Your task to perform on an android device: open app "Chime – Mobile Banking" Image 0: 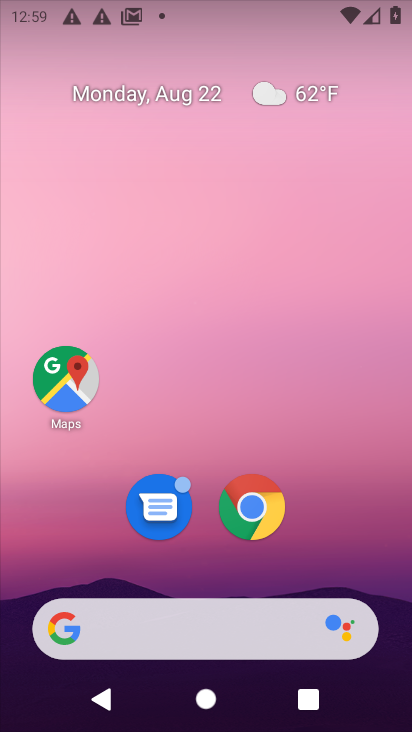
Step 0: click (345, 54)
Your task to perform on an android device: open app "Chime – Mobile Banking" Image 1: 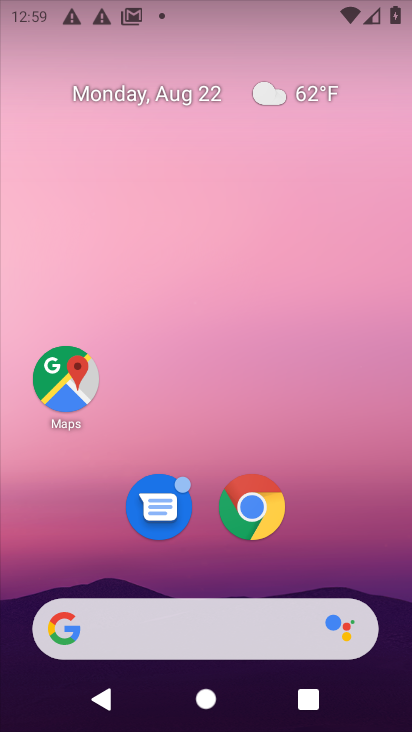
Step 1: drag from (388, 622) to (376, 84)
Your task to perform on an android device: open app "Chime – Mobile Banking" Image 2: 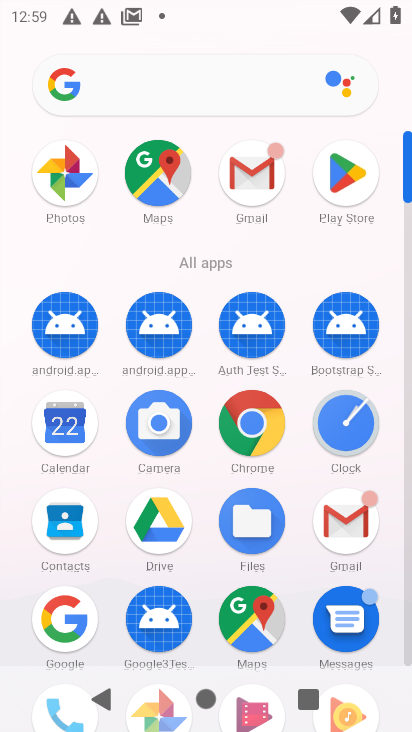
Step 2: click (406, 650)
Your task to perform on an android device: open app "Chime – Mobile Banking" Image 3: 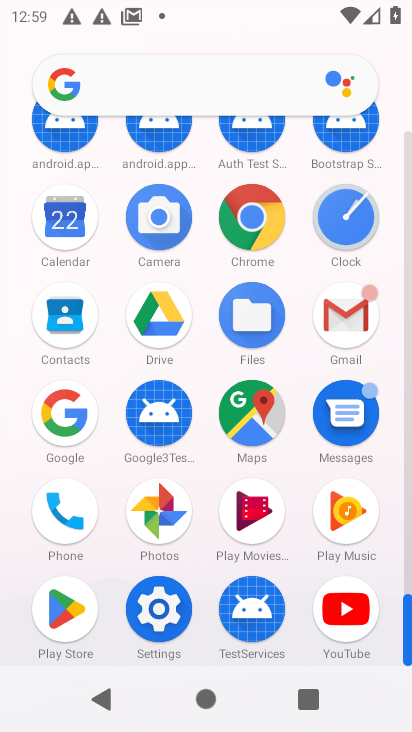
Step 3: click (66, 609)
Your task to perform on an android device: open app "Chime – Mobile Banking" Image 4: 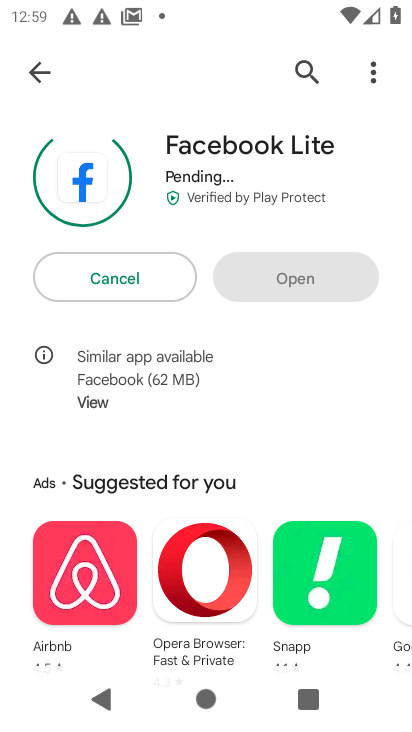
Step 4: click (308, 71)
Your task to perform on an android device: open app "Chime – Mobile Banking" Image 5: 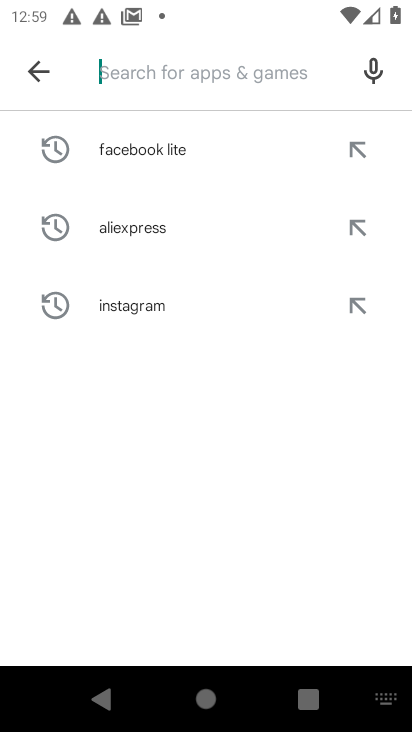
Step 5: type "Chime - Mobile Banking"
Your task to perform on an android device: open app "Chime – Mobile Banking" Image 6: 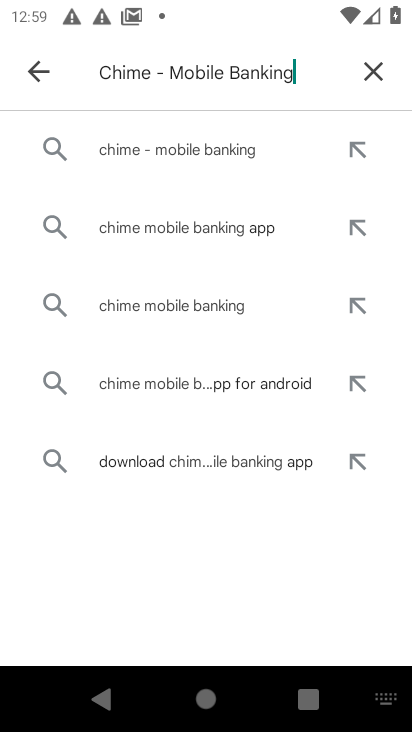
Step 6: click (178, 138)
Your task to perform on an android device: open app "Chime – Mobile Banking" Image 7: 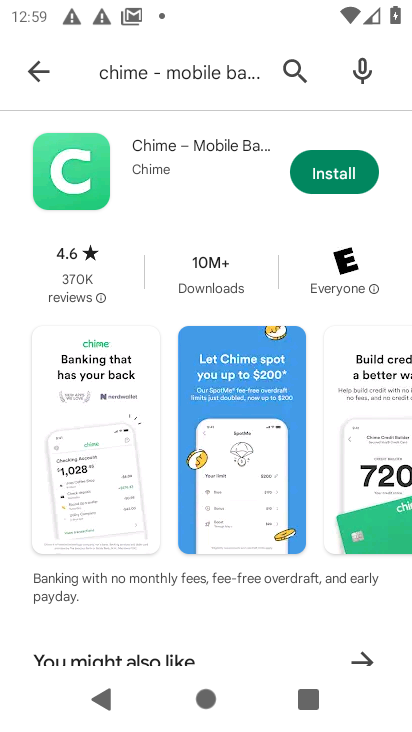
Step 7: click (171, 152)
Your task to perform on an android device: open app "Chime – Mobile Banking" Image 8: 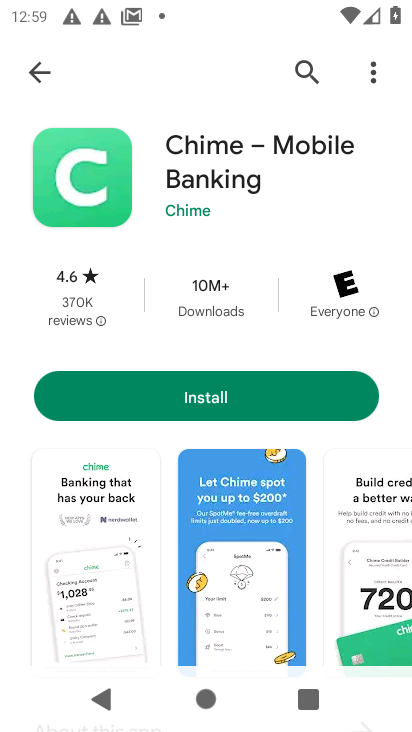
Step 8: task complete